Your task to perform on an android device: install app "Life360: Find Family & Friends" Image 0: 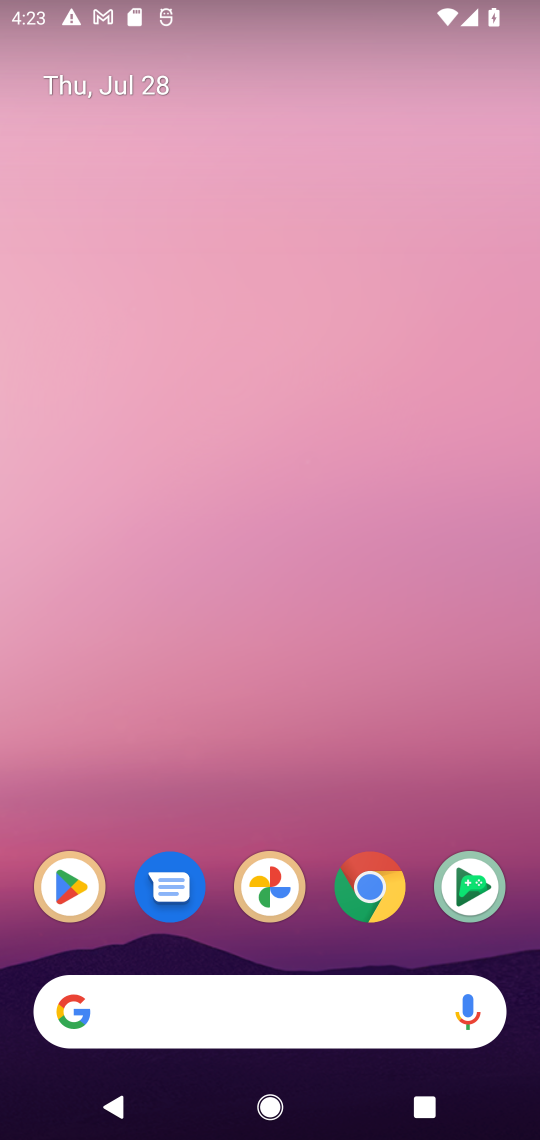
Step 0: click (54, 870)
Your task to perform on an android device: install app "Life360: Find Family & Friends" Image 1: 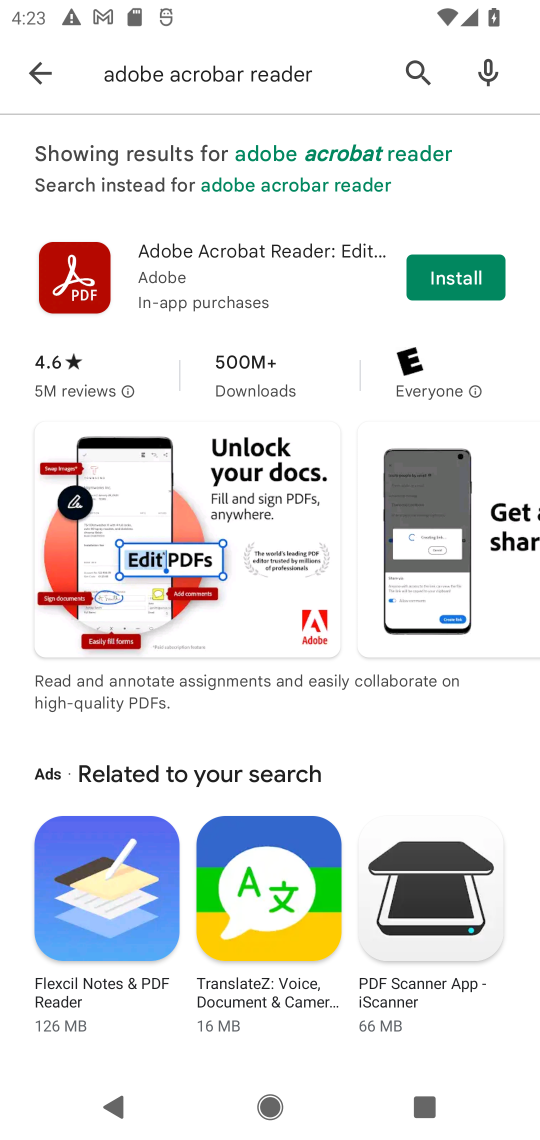
Step 1: click (265, 78)
Your task to perform on an android device: install app "Life360: Find Family & Friends" Image 2: 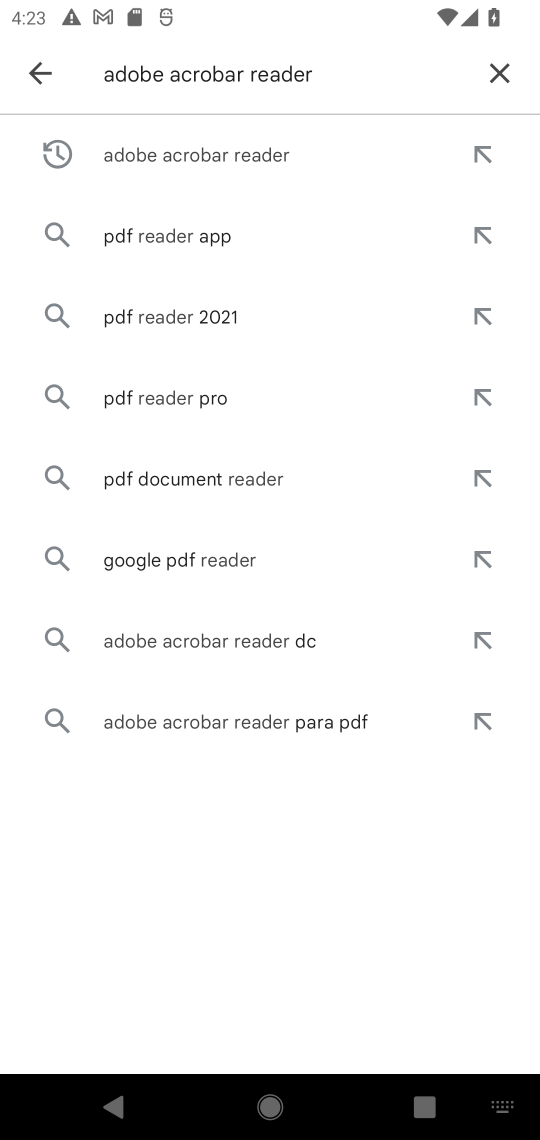
Step 2: click (492, 67)
Your task to perform on an android device: install app "Life360: Find Family & Friends" Image 3: 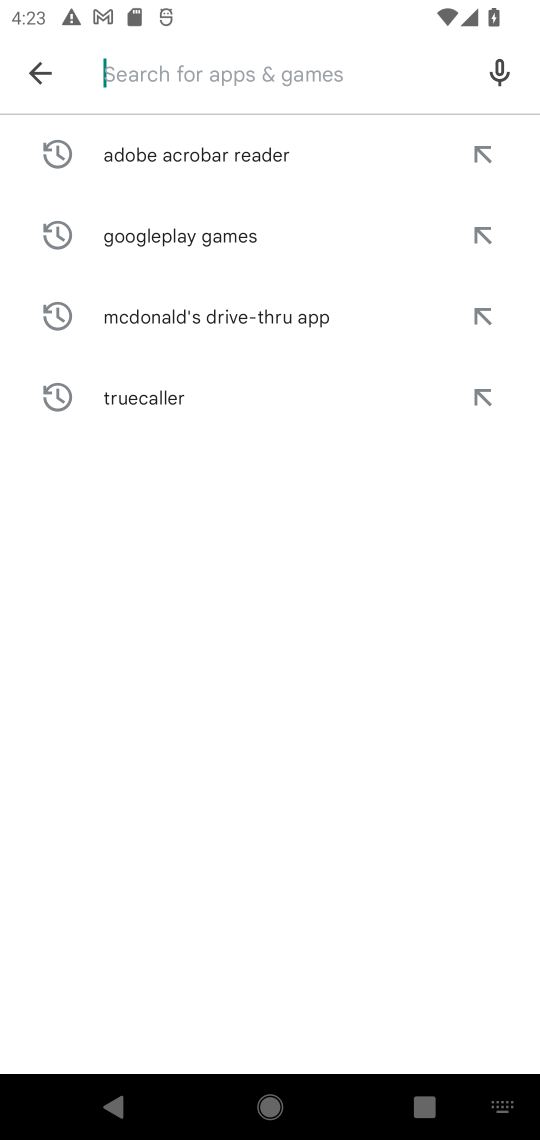
Step 3: type "life360"
Your task to perform on an android device: install app "Life360: Find Family & Friends" Image 4: 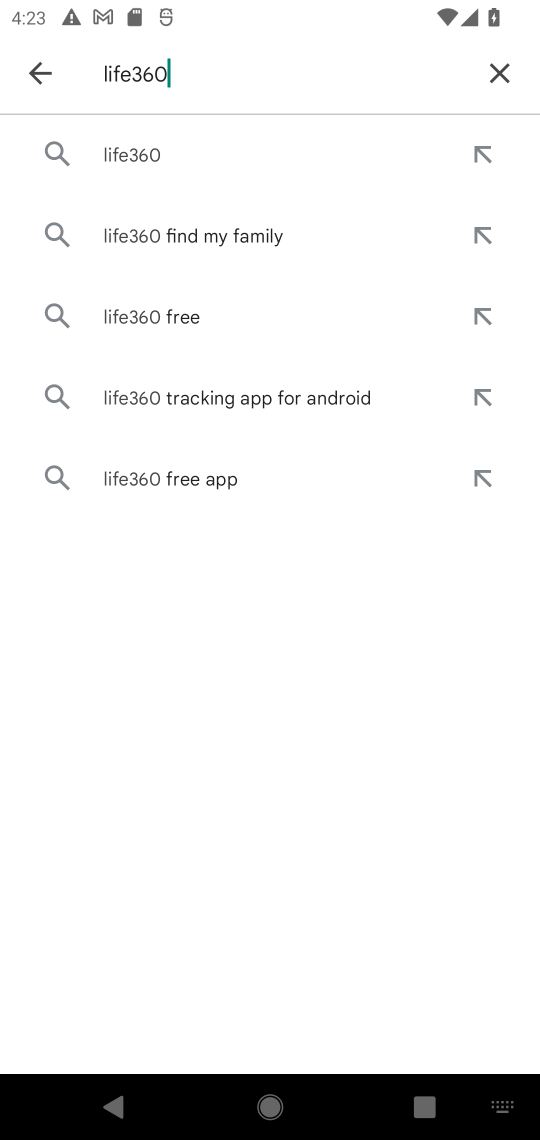
Step 4: click (160, 168)
Your task to perform on an android device: install app "Life360: Find Family & Friends" Image 5: 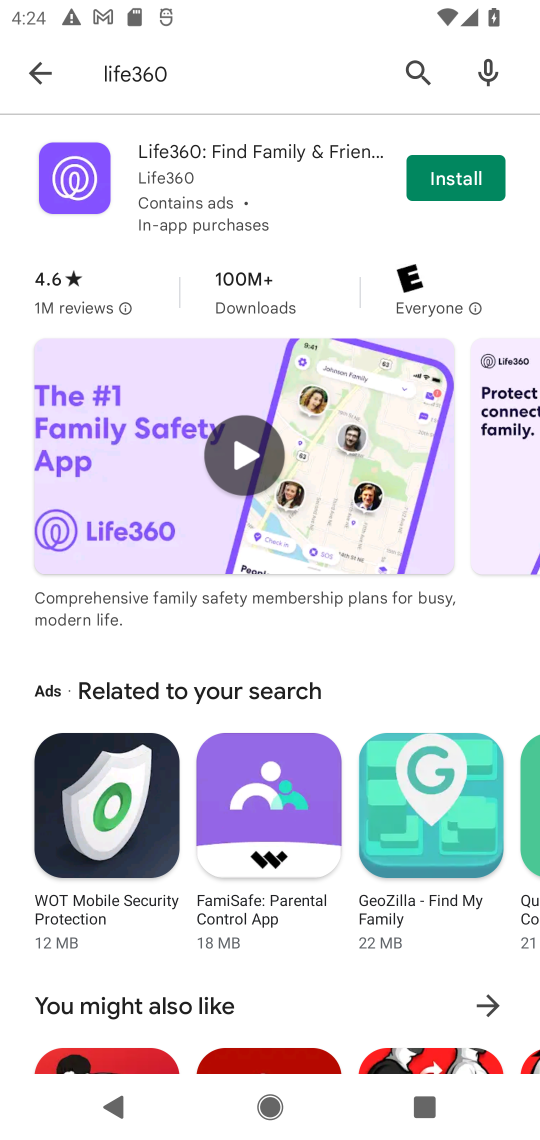
Step 5: click (463, 170)
Your task to perform on an android device: install app "Life360: Find Family & Friends" Image 6: 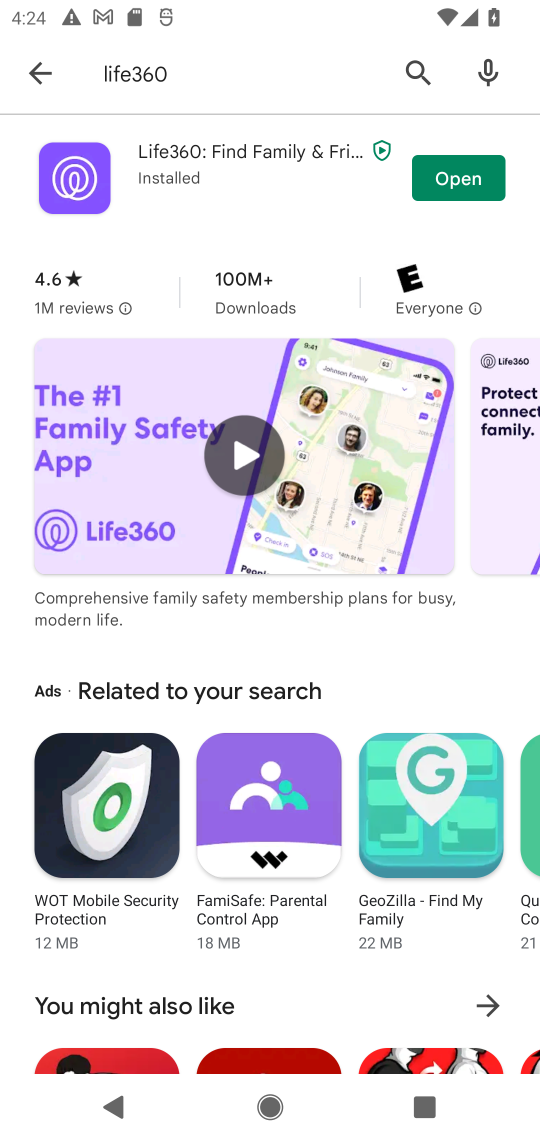
Step 6: task complete